Your task to perform on an android device: toggle data saver in the chrome app Image 0: 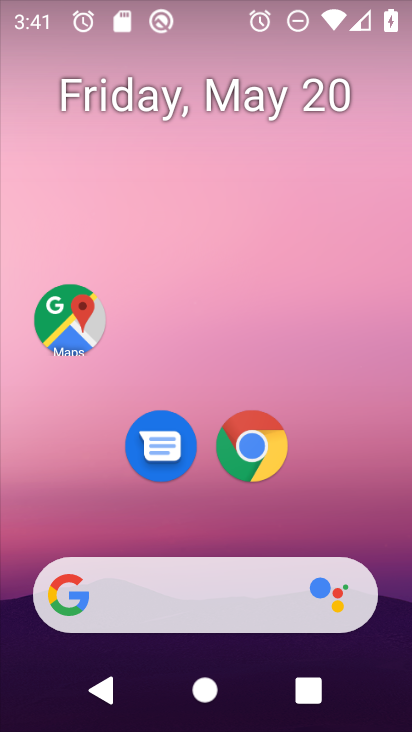
Step 0: click (254, 446)
Your task to perform on an android device: toggle data saver in the chrome app Image 1: 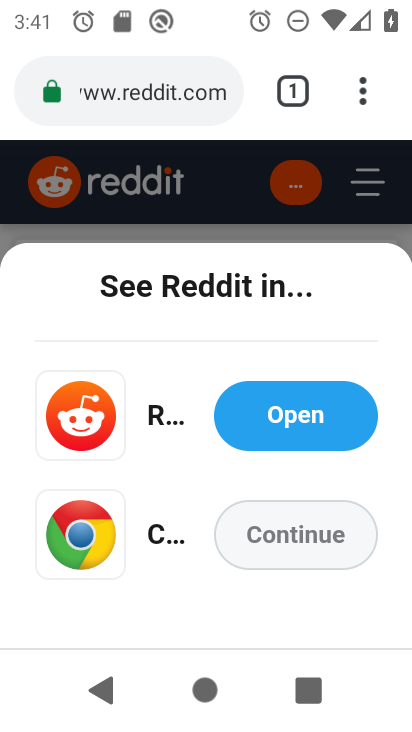
Step 1: click (362, 92)
Your task to perform on an android device: toggle data saver in the chrome app Image 2: 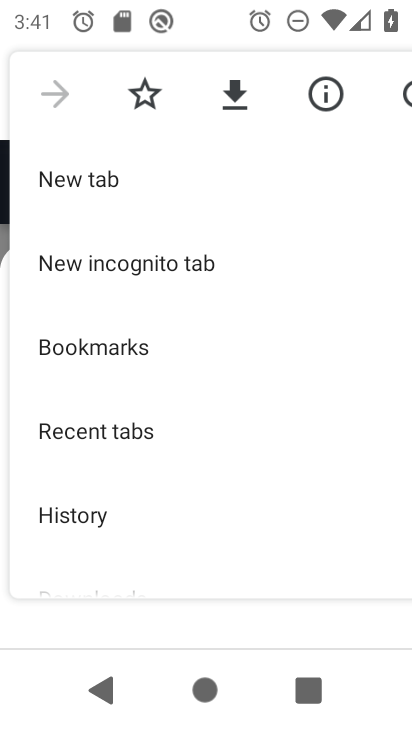
Step 2: drag from (182, 495) to (207, 128)
Your task to perform on an android device: toggle data saver in the chrome app Image 3: 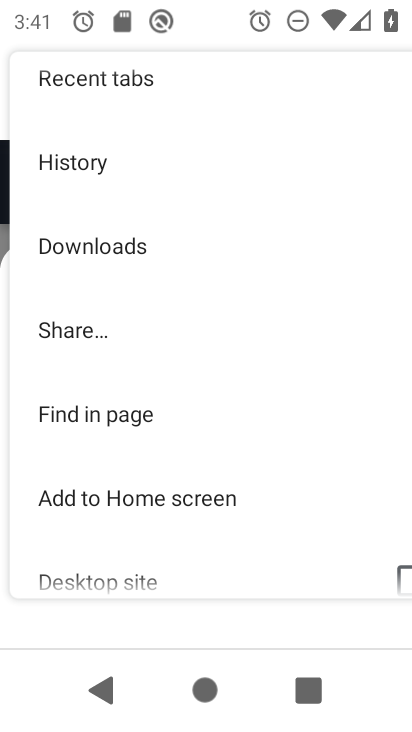
Step 3: drag from (183, 454) to (219, 139)
Your task to perform on an android device: toggle data saver in the chrome app Image 4: 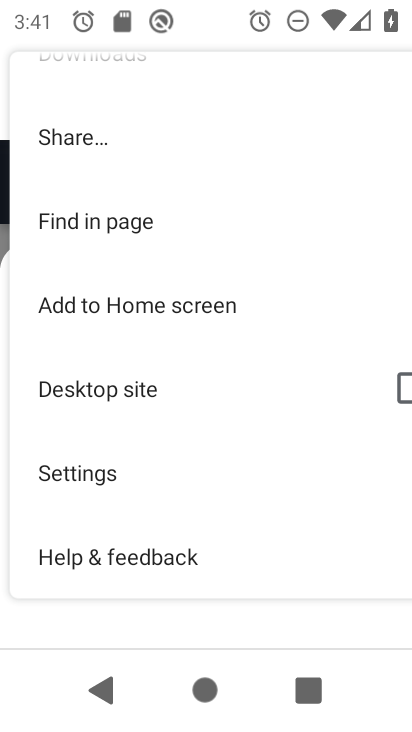
Step 4: click (89, 478)
Your task to perform on an android device: toggle data saver in the chrome app Image 5: 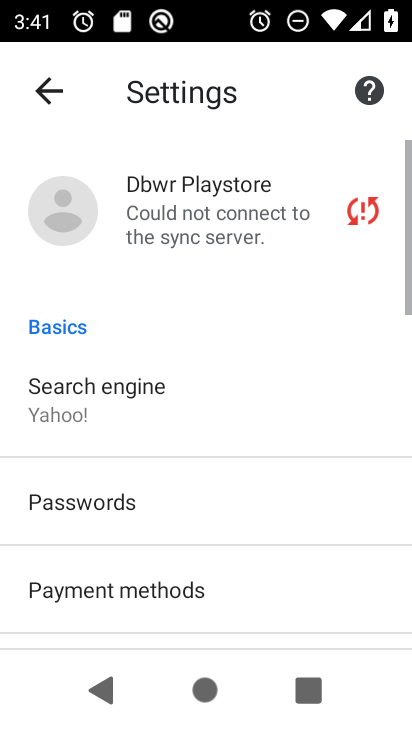
Step 5: drag from (237, 579) to (238, 98)
Your task to perform on an android device: toggle data saver in the chrome app Image 6: 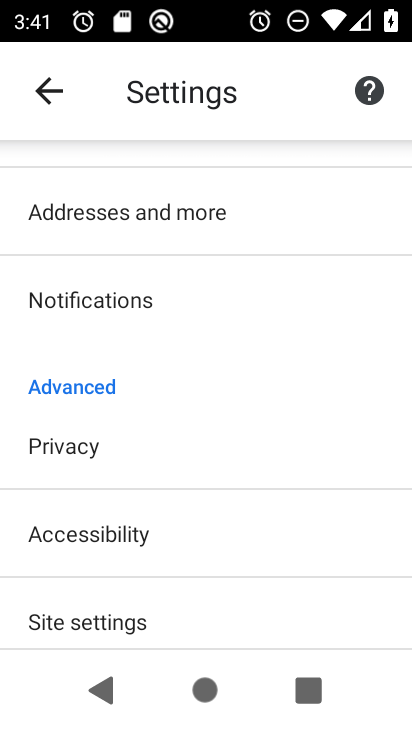
Step 6: drag from (174, 516) to (182, 151)
Your task to perform on an android device: toggle data saver in the chrome app Image 7: 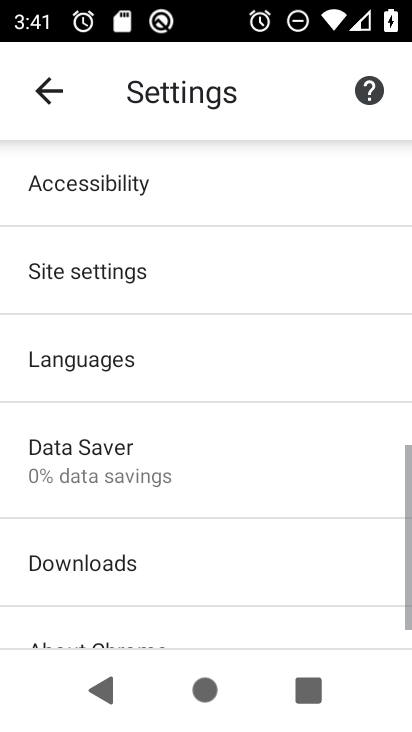
Step 7: click (92, 450)
Your task to perform on an android device: toggle data saver in the chrome app Image 8: 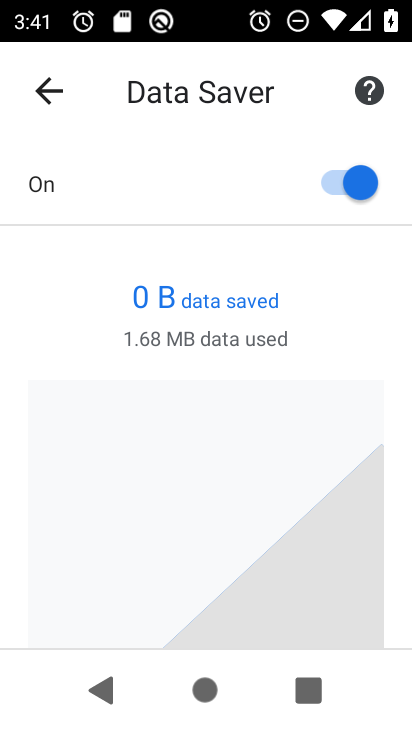
Step 8: click (354, 190)
Your task to perform on an android device: toggle data saver in the chrome app Image 9: 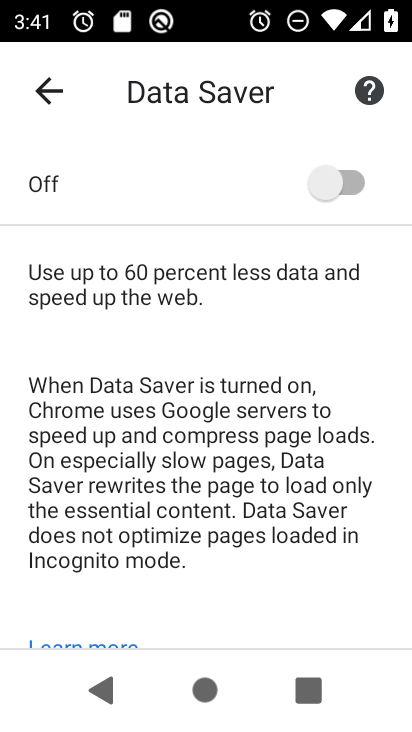
Step 9: task complete